Your task to perform on an android device: open app "Pluto TV - Live TV and Movies" Image 0: 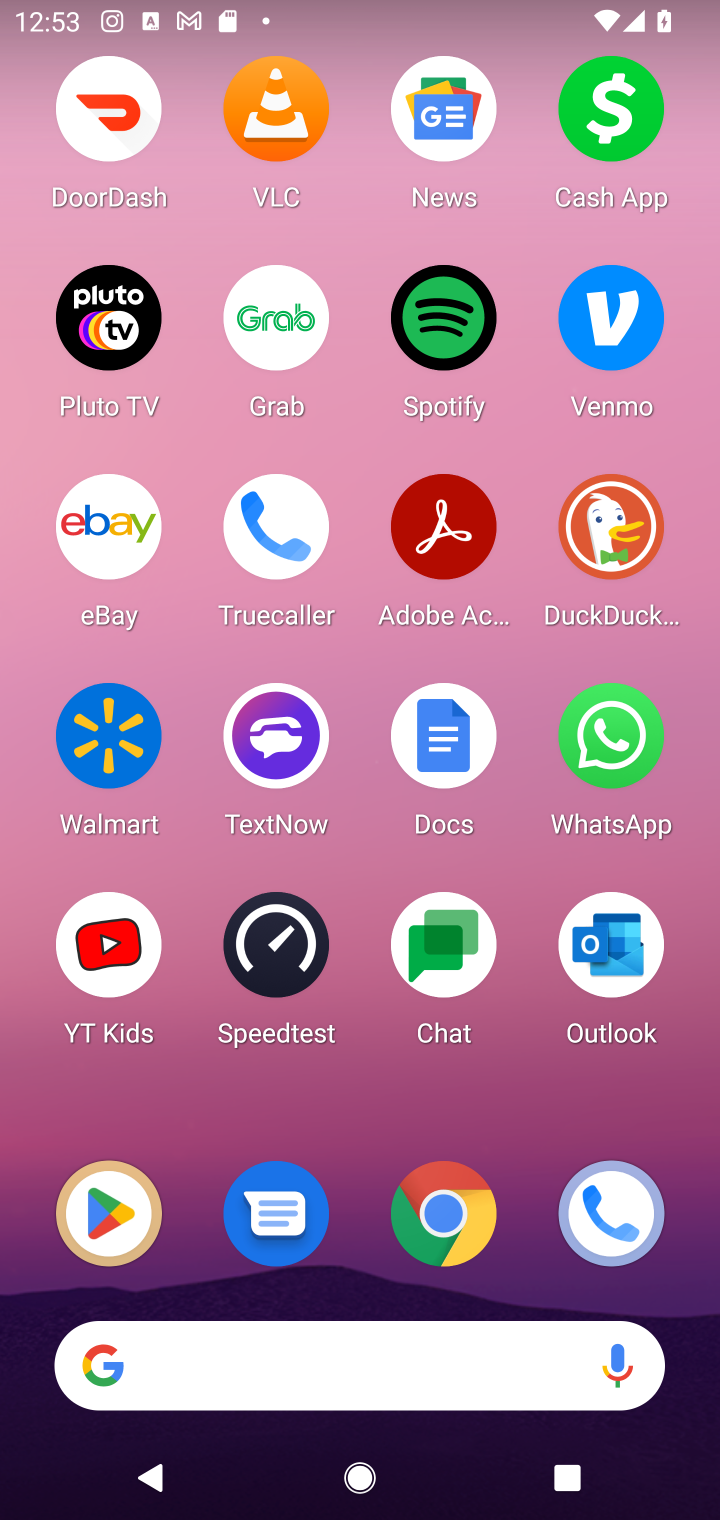
Step 0: click (85, 1195)
Your task to perform on an android device: open app "Pluto TV - Live TV and Movies" Image 1: 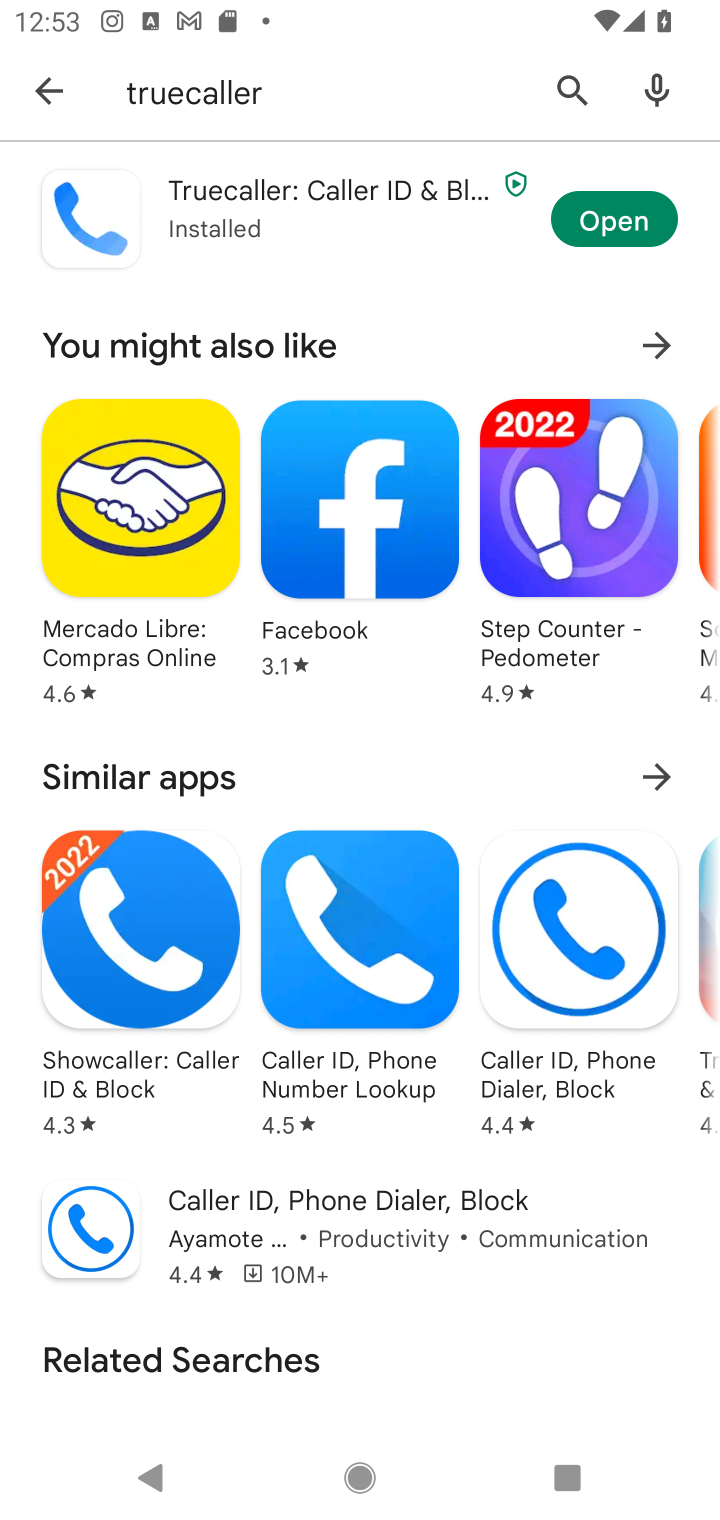
Step 1: click (48, 93)
Your task to perform on an android device: open app "Pluto TV - Live TV and Movies" Image 2: 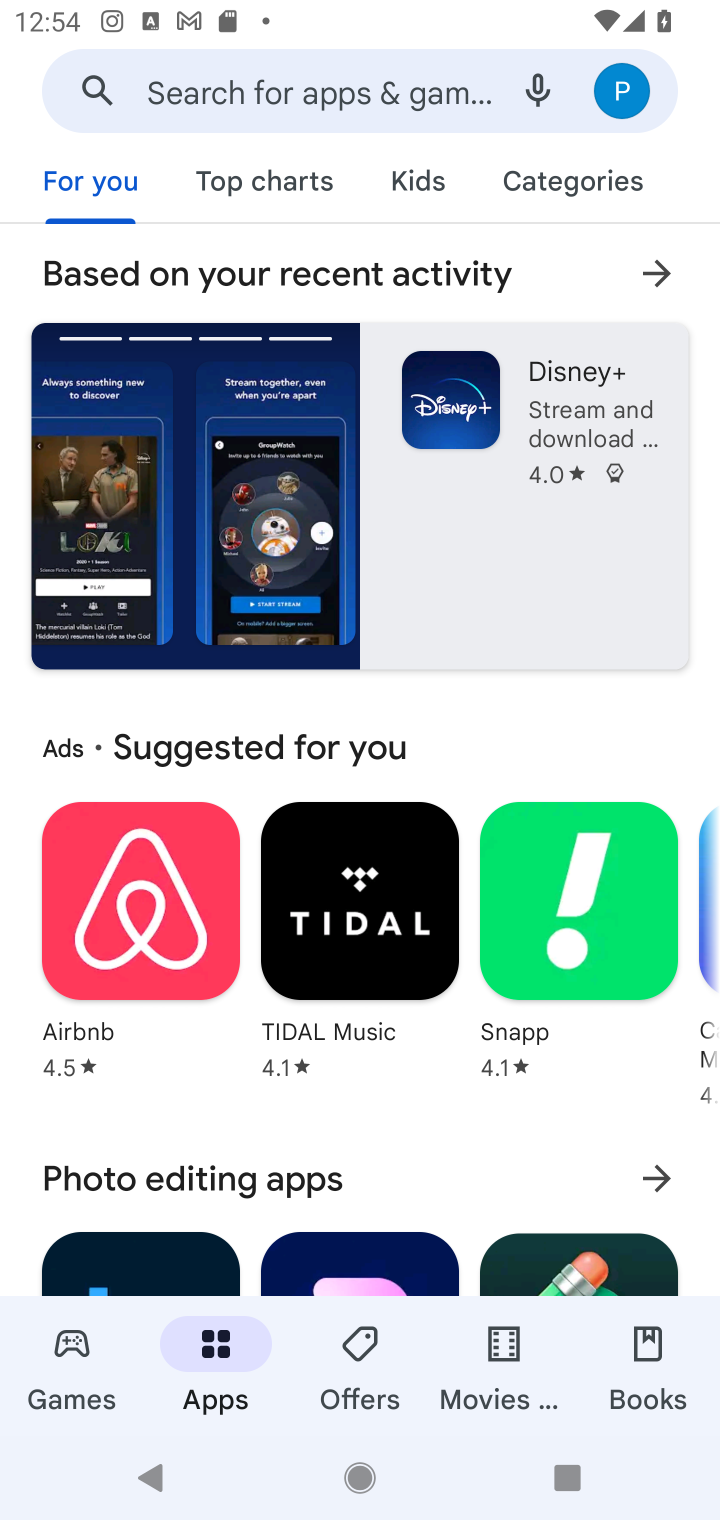
Step 2: click (289, 96)
Your task to perform on an android device: open app "Pluto TV - Live TV and Movies" Image 3: 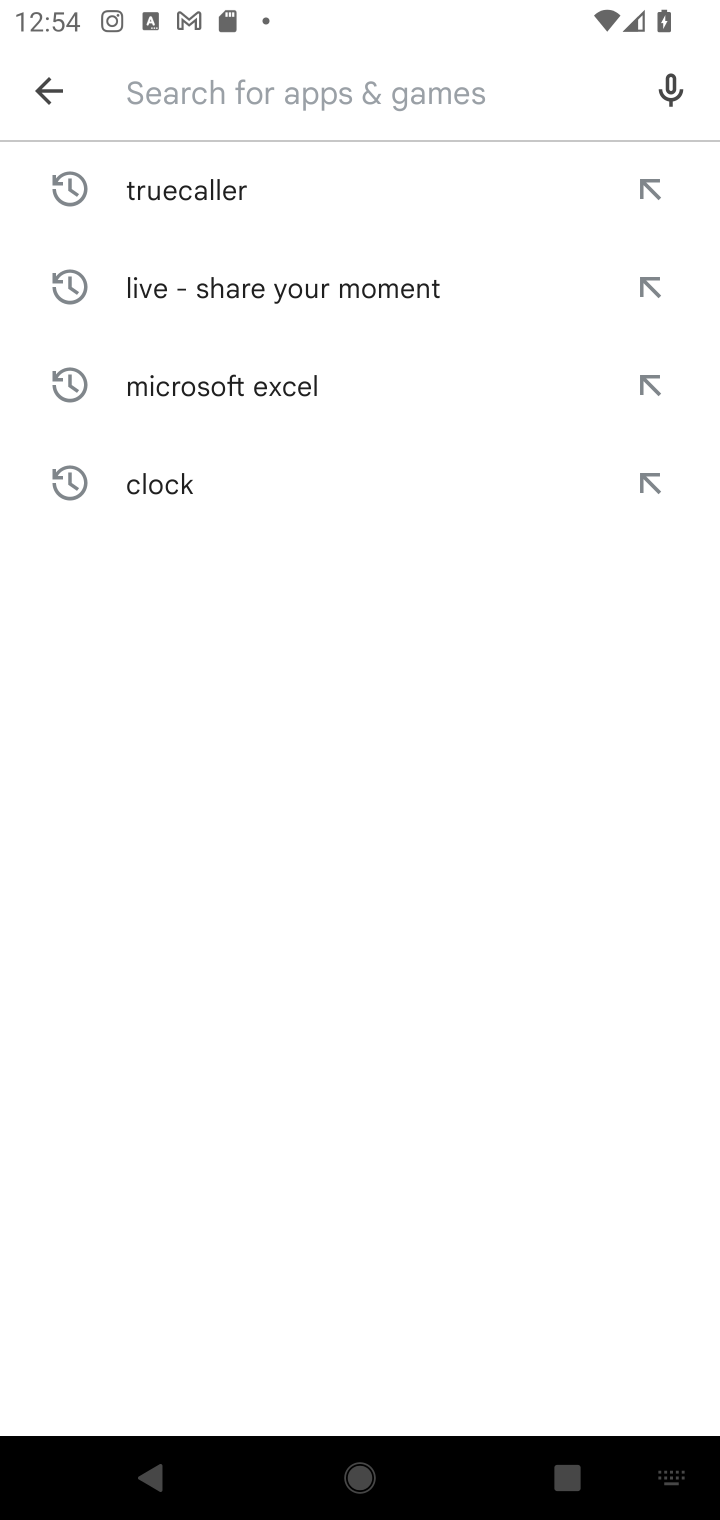
Step 3: type "Pluto TV - Live TV and Movies"
Your task to perform on an android device: open app "Pluto TV - Live TV and Movies" Image 4: 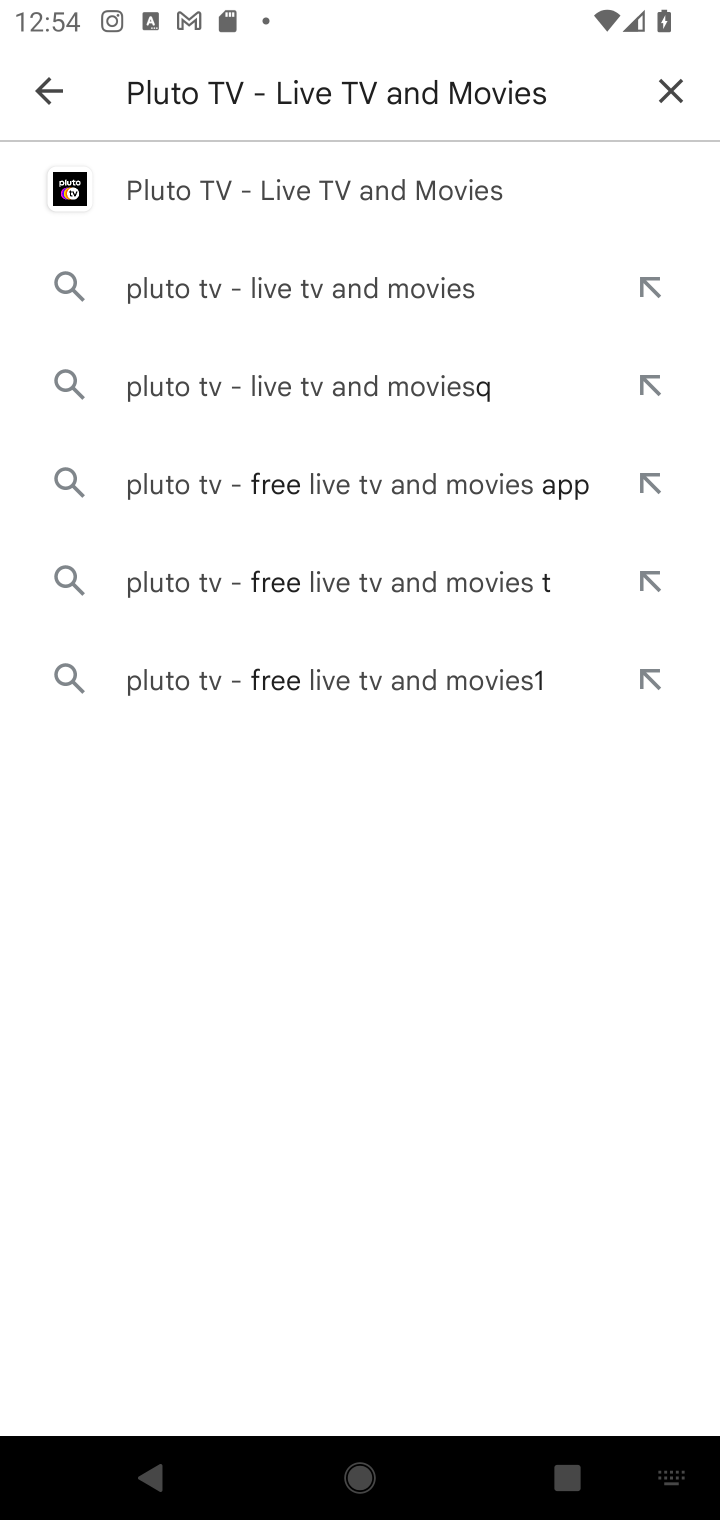
Step 4: click (376, 177)
Your task to perform on an android device: open app "Pluto TV - Live TV and Movies" Image 5: 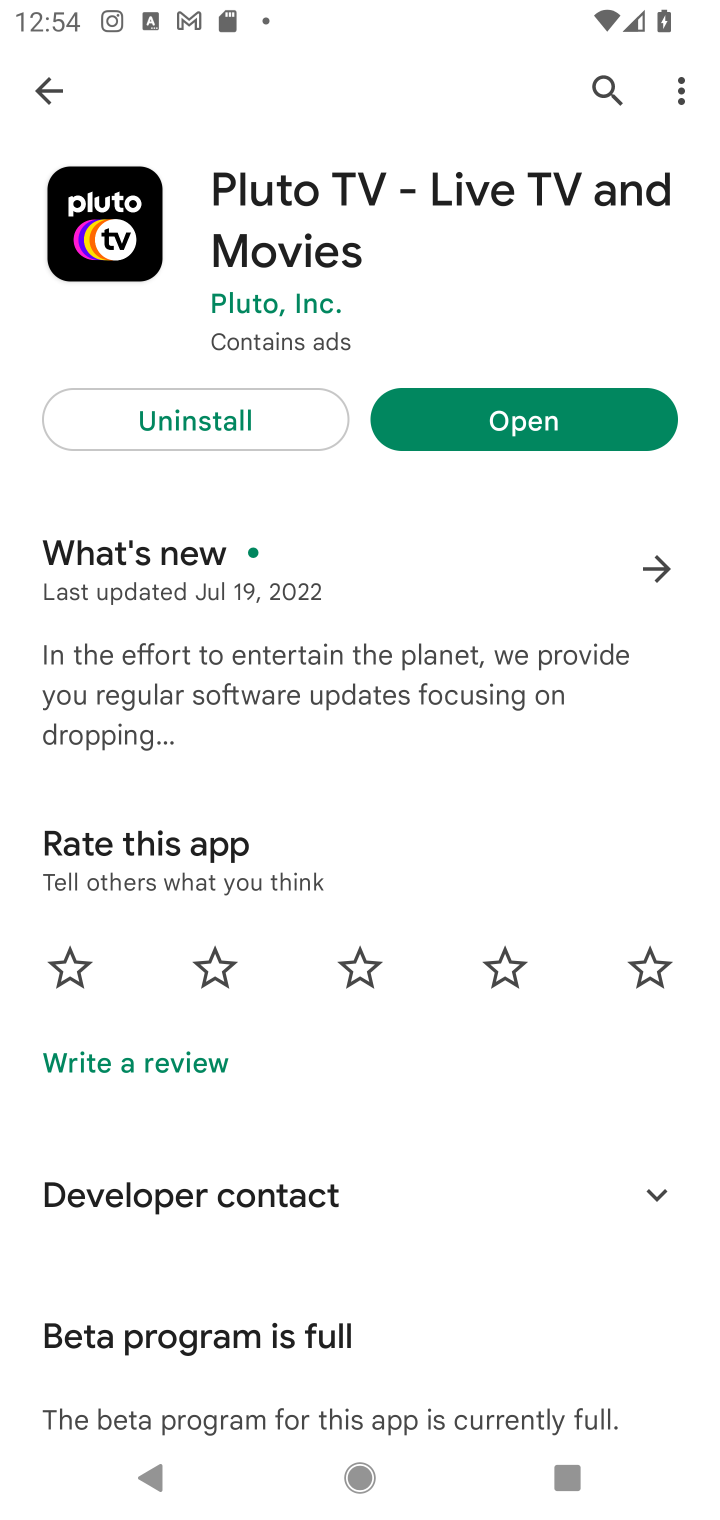
Step 5: click (514, 426)
Your task to perform on an android device: open app "Pluto TV - Live TV and Movies" Image 6: 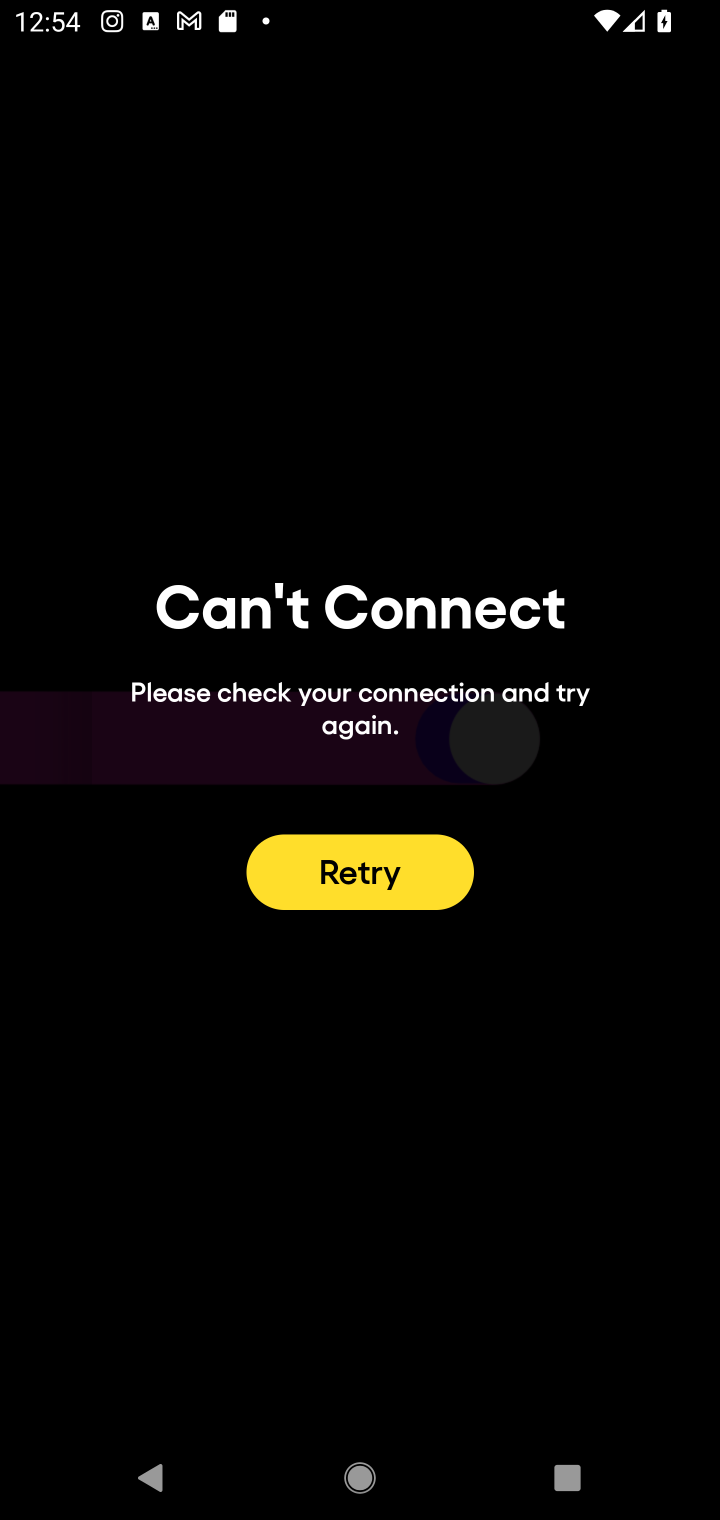
Step 6: task complete